Your task to perform on an android device: Open ESPN.com Image 0: 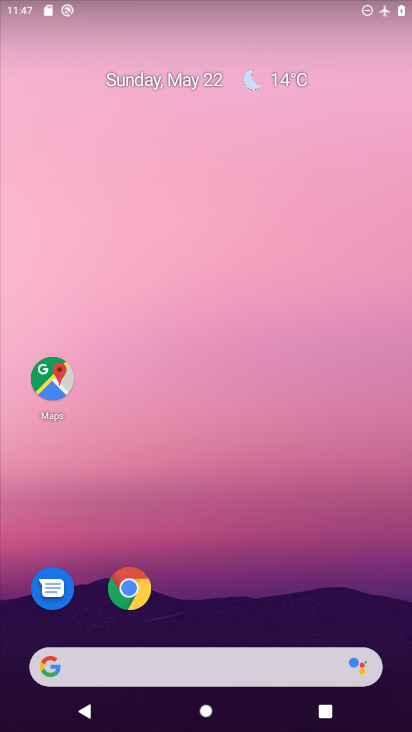
Step 0: click (138, 588)
Your task to perform on an android device: Open ESPN.com Image 1: 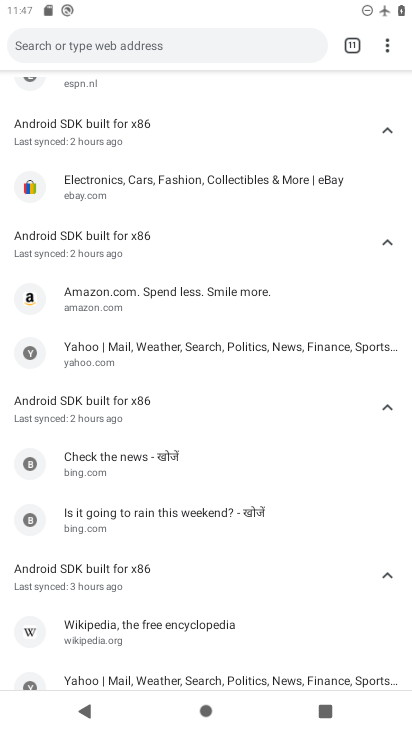
Step 1: drag from (171, 172) to (179, 450)
Your task to perform on an android device: Open ESPN.com Image 2: 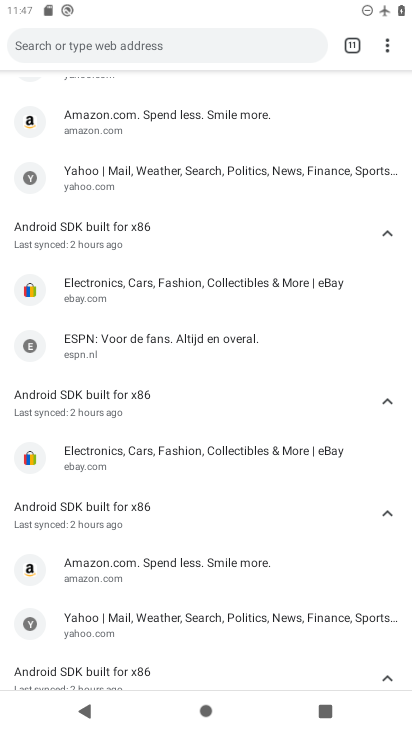
Step 2: drag from (278, 133) to (278, 361)
Your task to perform on an android device: Open ESPN.com Image 3: 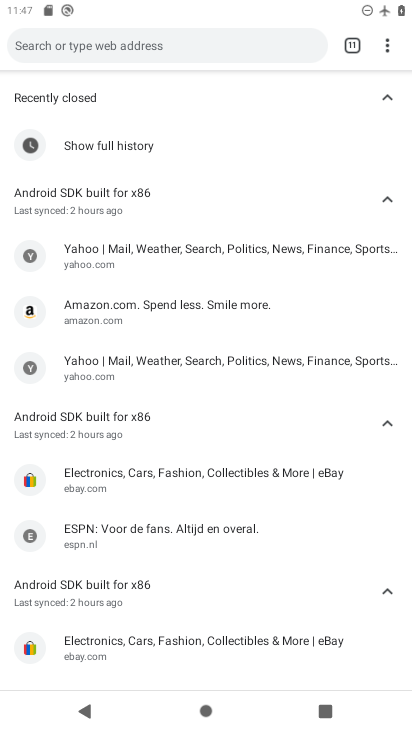
Step 3: click (351, 43)
Your task to perform on an android device: Open ESPN.com Image 4: 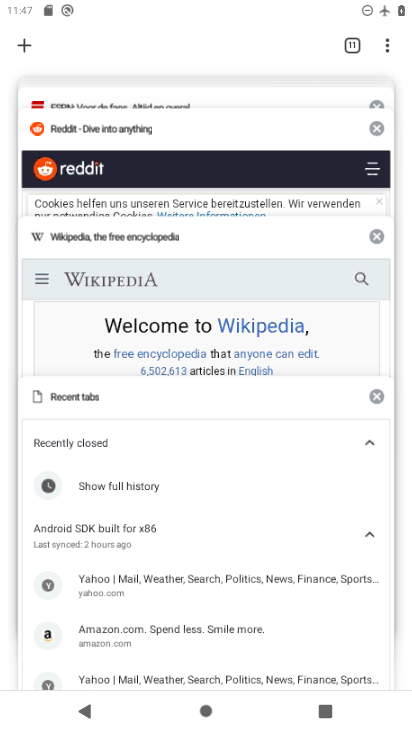
Step 4: click (86, 98)
Your task to perform on an android device: Open ESPN.com Image 5: 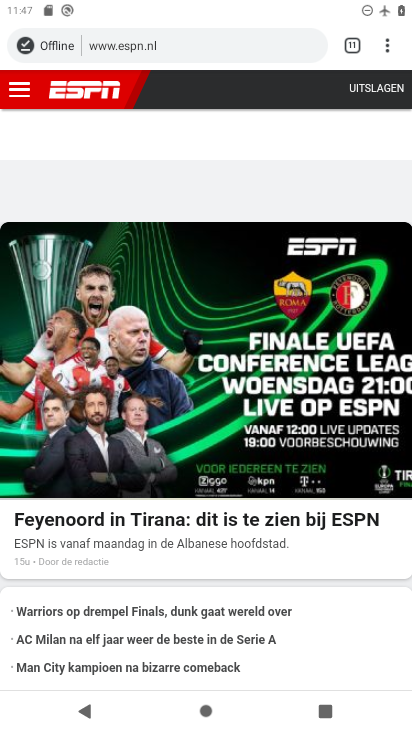
Step 5: task complete